Your task to perform on an android device: Go to eBay Image 0: 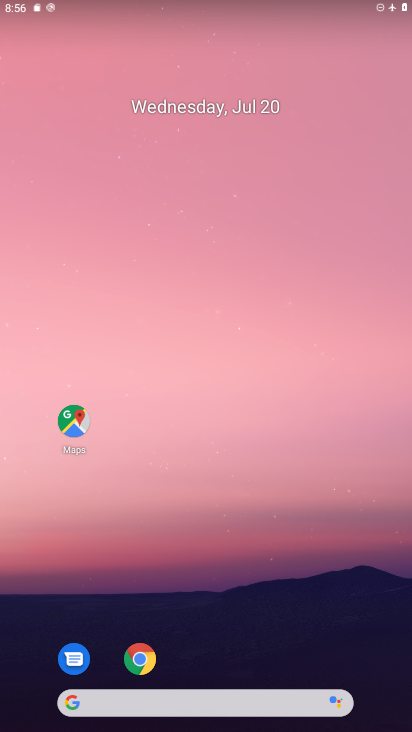
Step 0: click (143, 662)
Your task to perform on an android device: Go to eBay Image 1: 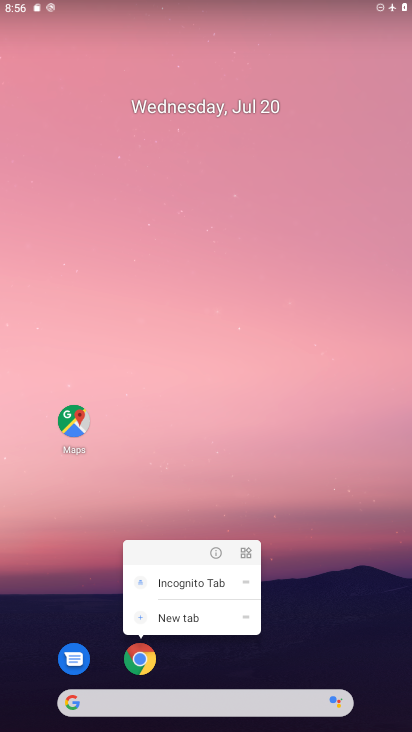
Step 1: click (143, 662)
Your task to perform on an android device: Go to eBay Image 2: 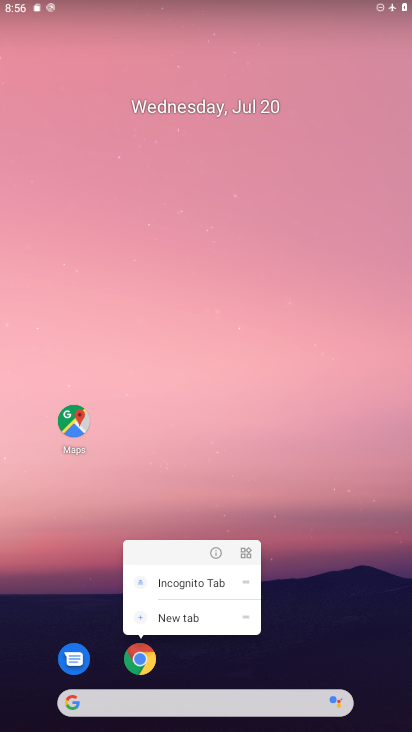
Step 2: click (143, 662)
Your task to perform on an android device: Go to eBay Image 3: 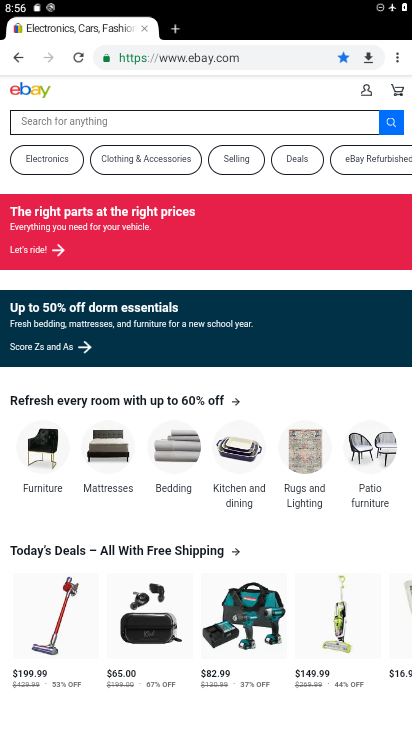
Step 3: task complete